Your task to perform on an android device: see tabs open on other devices in the chrome app Image 0: 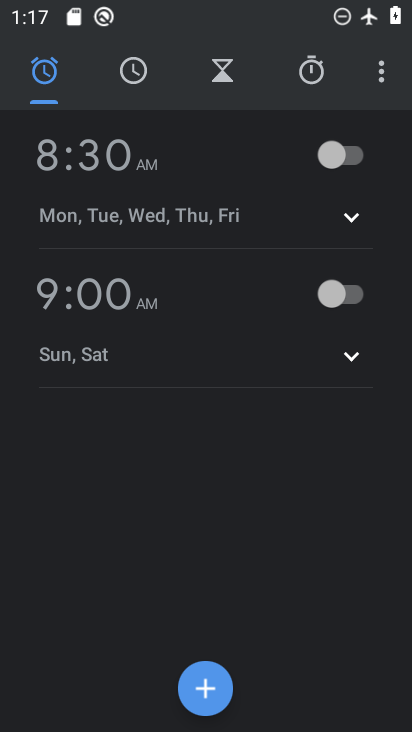
Step 0: press home button
Your task to perform on an android device: see tabs open on other devices in the chrome app Image 1: 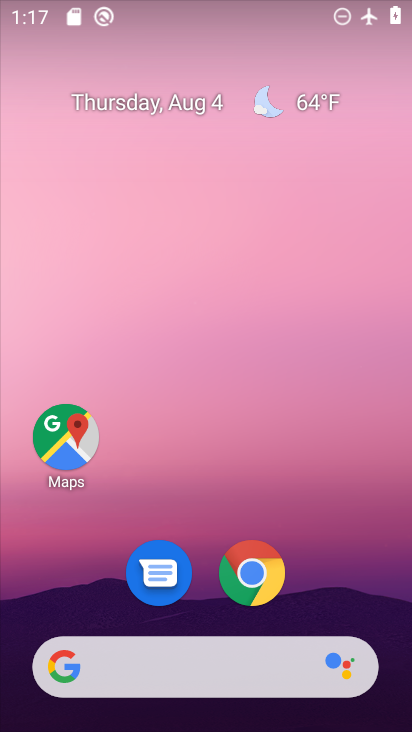
Step 1: drag from (332, 521) to (320, 61)
Your task to perform on an android device: see tabs open on other devices in the chrome app Image 2: 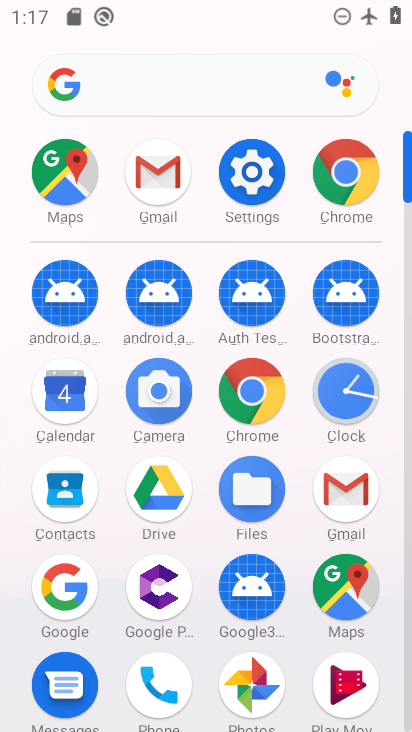
Step 2: click (259, 394)
Your task to perform on an android device: see tabs open on other devices in the chrome app Image 3: 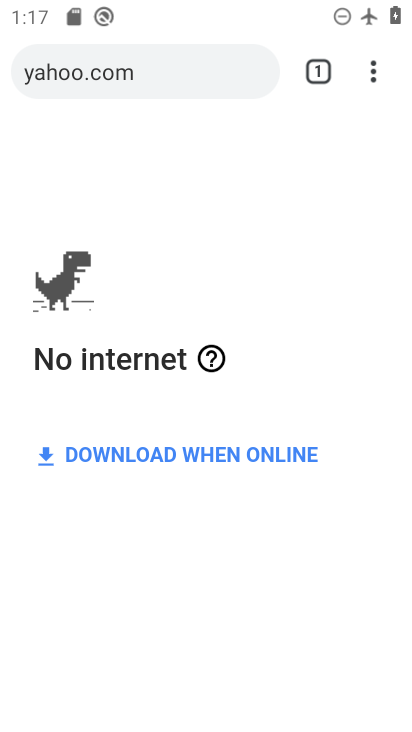
Step 3: task complete